Your task to perform on an android device: Go to privacy settings Image 0: 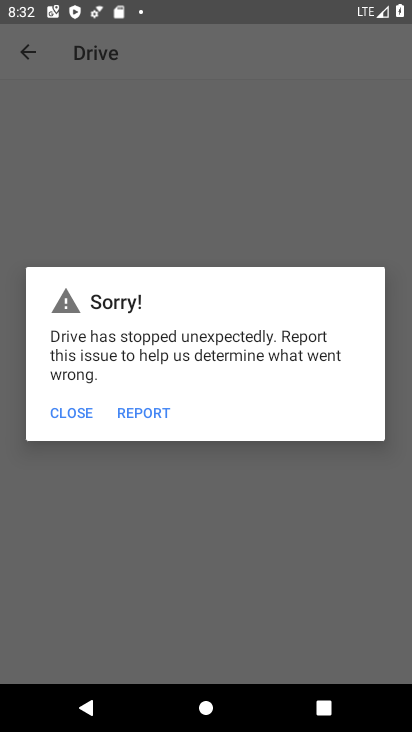
Step 0: press home button
Your task to perform on an android device: Go to privacy settings Image 1: 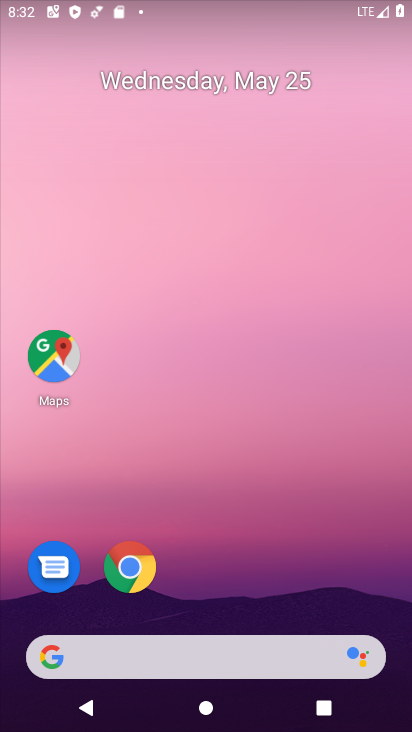
Step 1: drag from (279, 532) to (250, 13)
Your task to perform on an android device: Go to privacy settings Image 2: 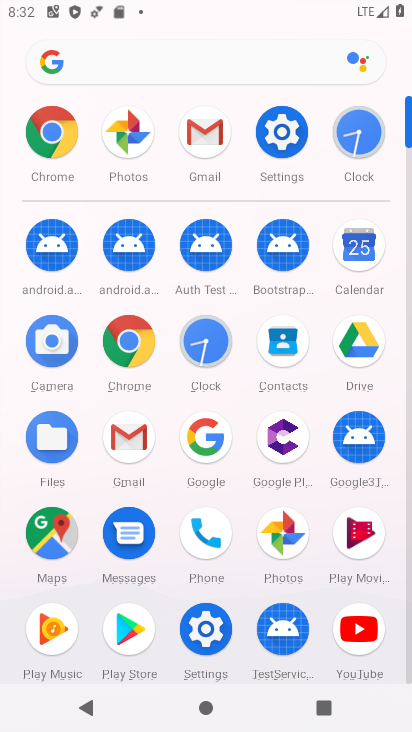
Step 2: click (277, 137)
Your task to perform on an android device: Go to privacy settings Image 3: 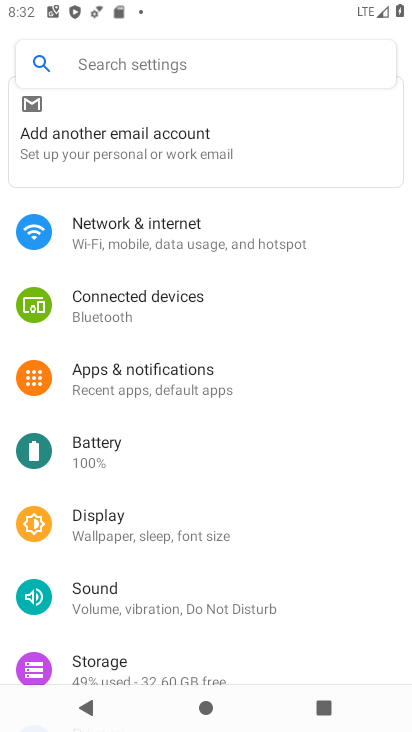
Step 3: drag from (206, 496) to (249, 121)
Your task to perform on an android device: Go to privacy settings Image 4: 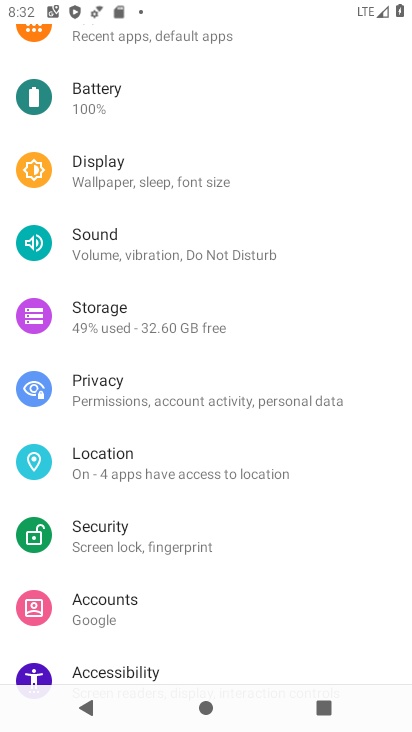
Step 4: drag from (144, 463) to (150, 393)
Your task to perform on an android device: Go to privacy settings Image 5: 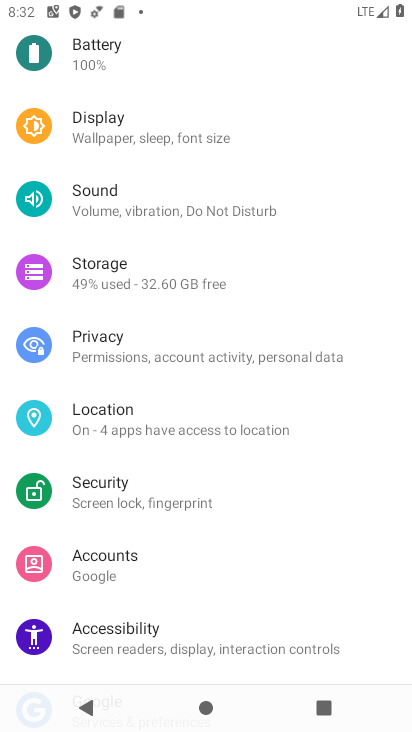
Step 5: click (186, 349)
Your task to perform on an android device: Go to privacy settings Image 6: 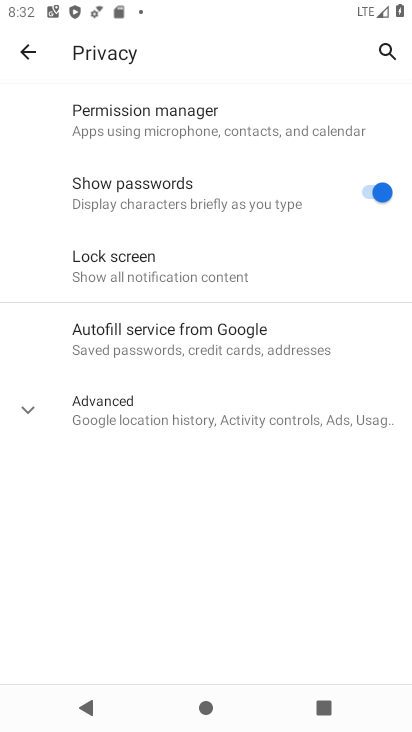
Step 6: task complete